Your task to perform on an android device: What's the weather? Image 0: 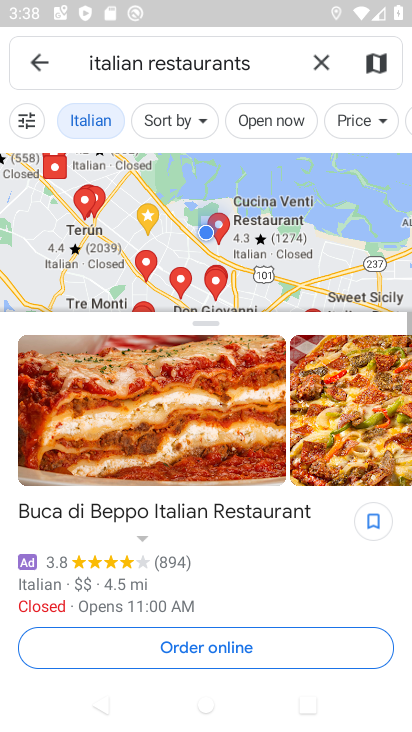
Step 0: press home button
Your task to perform on an android device: What's the weather? Image 1: 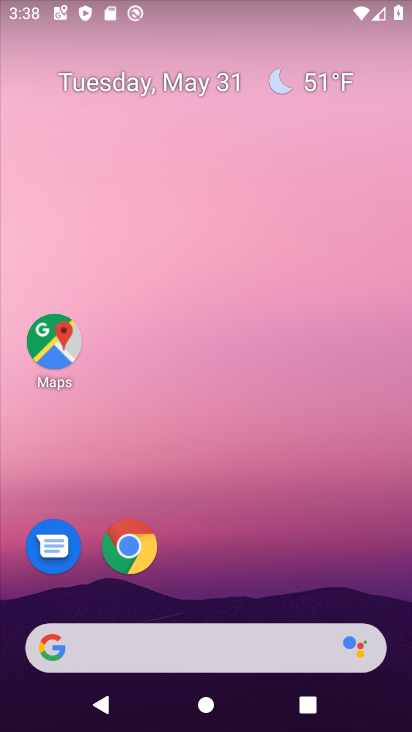
Step 1: click (192, 645)
Your task to perform on an android device: What's the weather? Image 2: 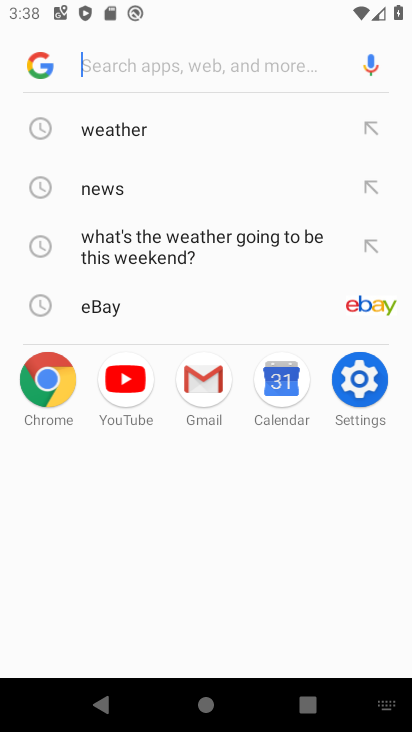
Step 2: click (144, 138)
Your task to perform on an android device: What's the weather? Image 3: 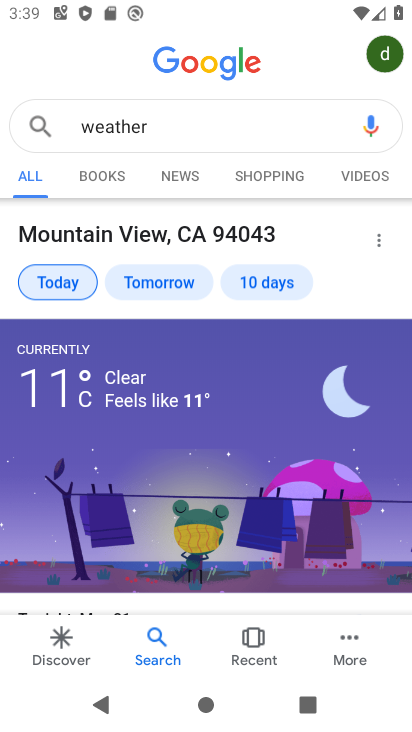
Step 3: task complete